Your task to perform on an android device: uninstall "Life360: Find Family & Friends" Image 0: 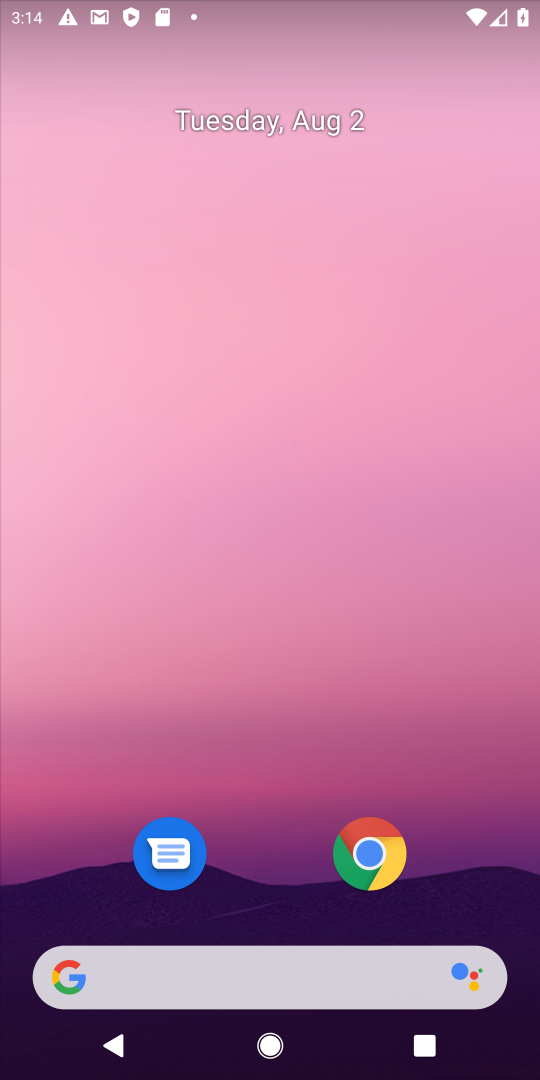
Step 0: drag from (297, 956) to (277, 125)
Your task to perform on an android device: uninstall "Life360: Find Family & Friends" Image 1: 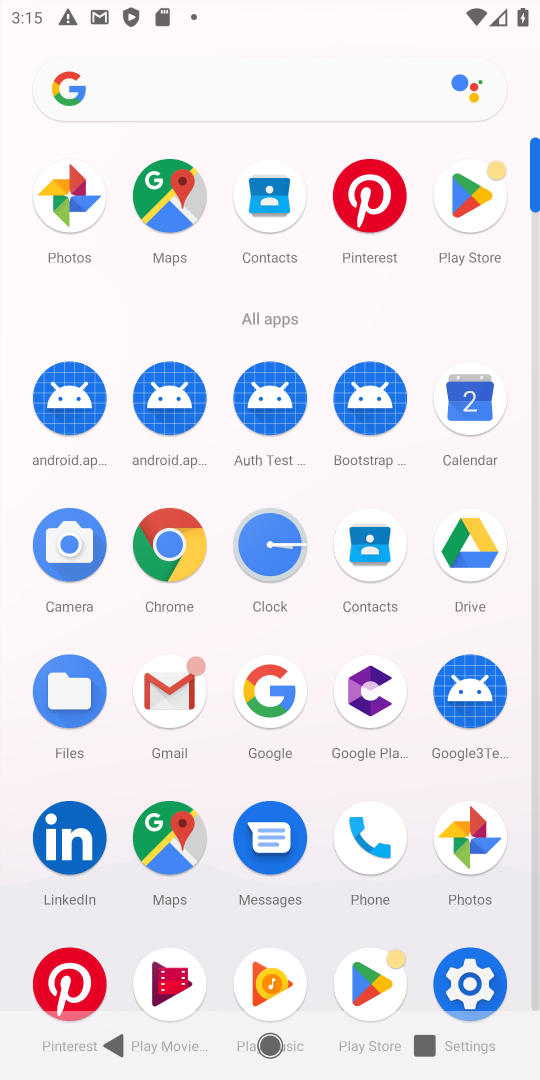
Step 1: click (364, 978)
Your task to perform on an android device: uninstall "Life360: Find Family & Friends" Image 2: 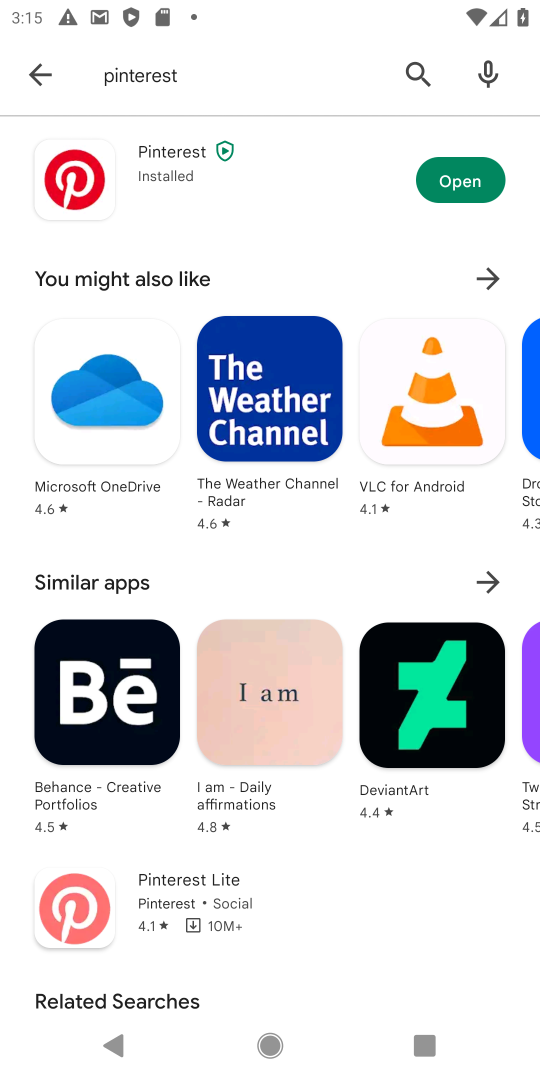
Step 2: click (410, 75)
Your task to perform on an android device: uninstall "Life360: Find Family & Friends" Image 3: 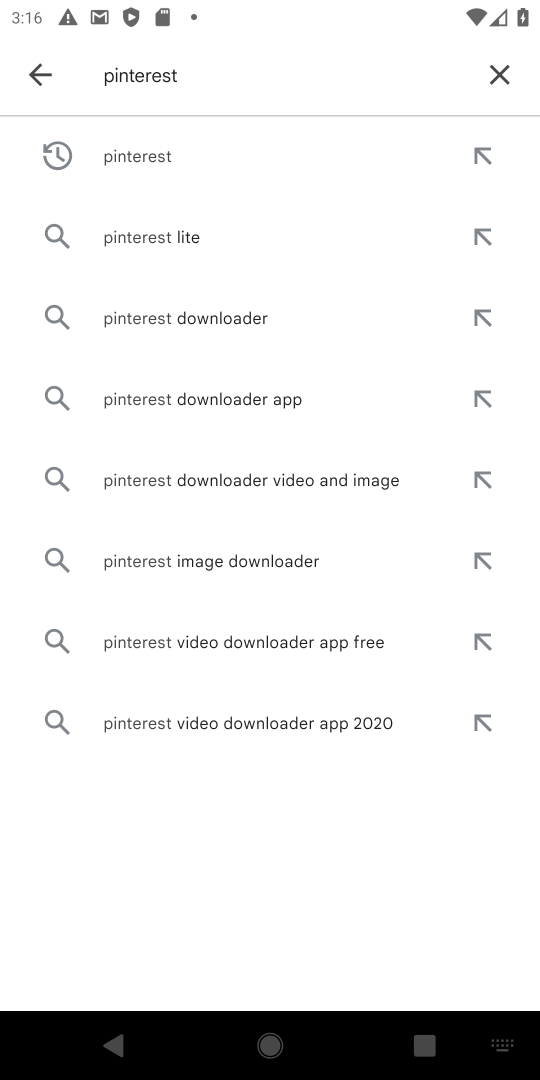
Step 3: click (503, 67)
Your task to perform on an android device: uninstall "Life360: Find Family & Friends" Image 4: 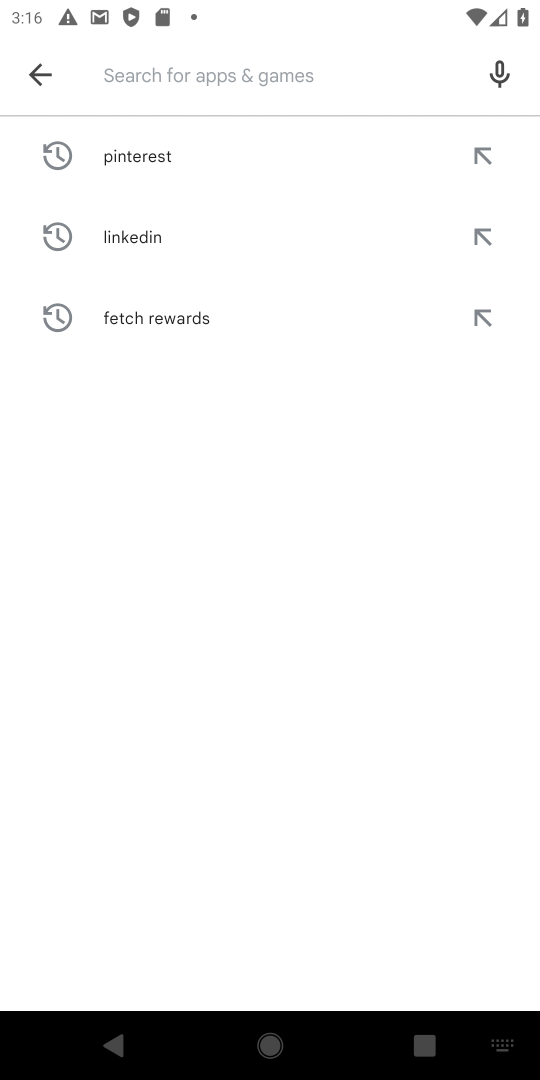
Step 4: type "Life360: Find Family & Friends"
Your task to perform on an android device: uninstall "Life360: Find Family & Friends" Image 5: 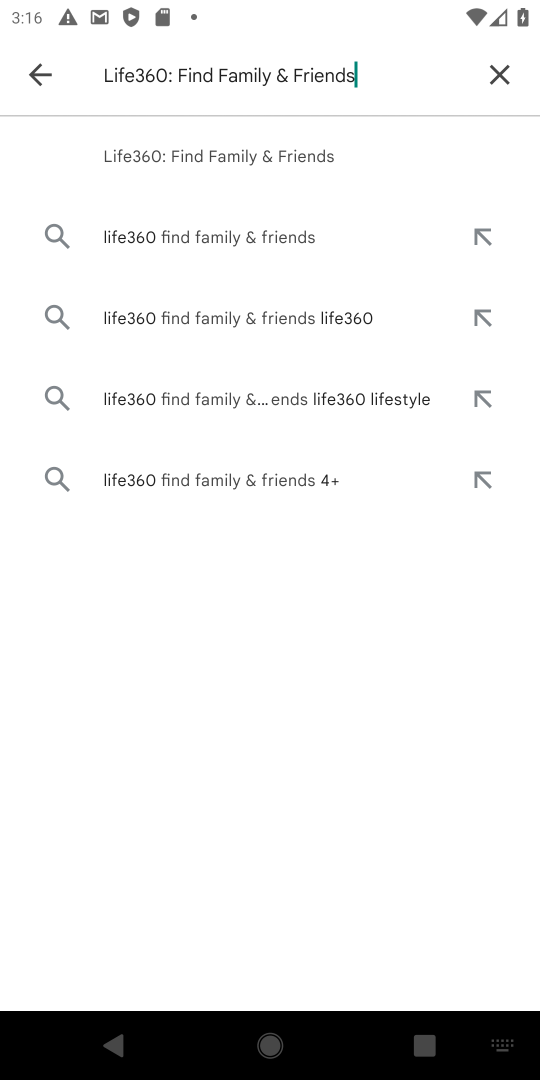
Step 5: type ""
Your task to perform on an android device: uninstall "Life360: Find Family & Friends" Image 6: 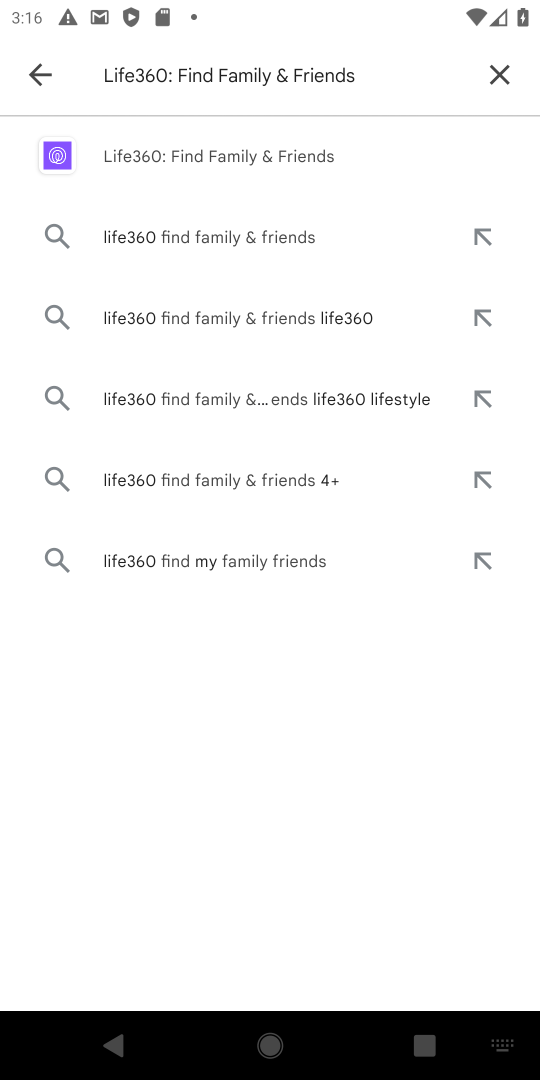
Step 6: click (156, 153)
Your task to perform on an android device: uninstall "Life360: Find Family & Friends" Image 7: 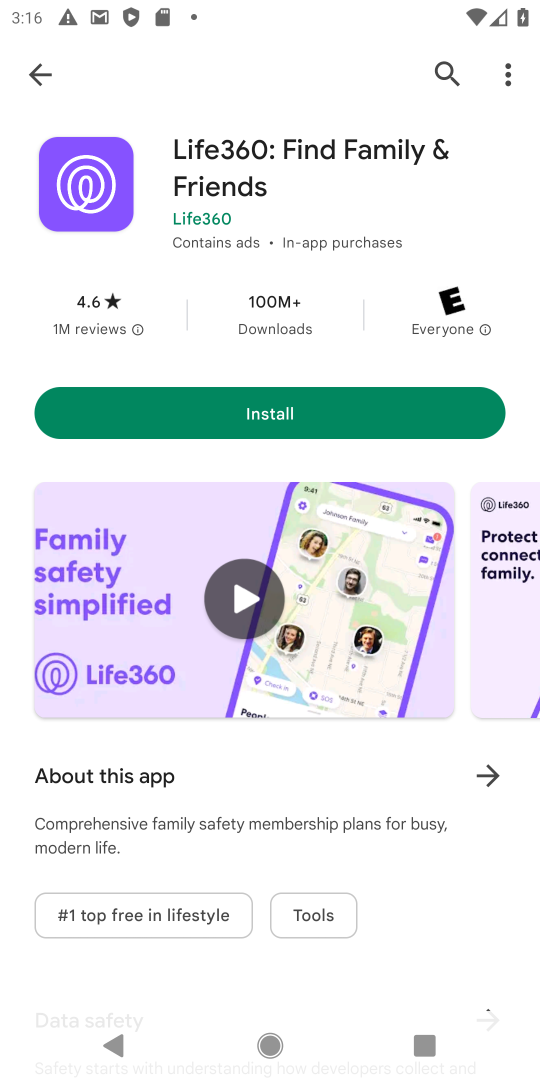
Step 7: task complete